Your task to perform on an android device: turn notification dots on Image 0: 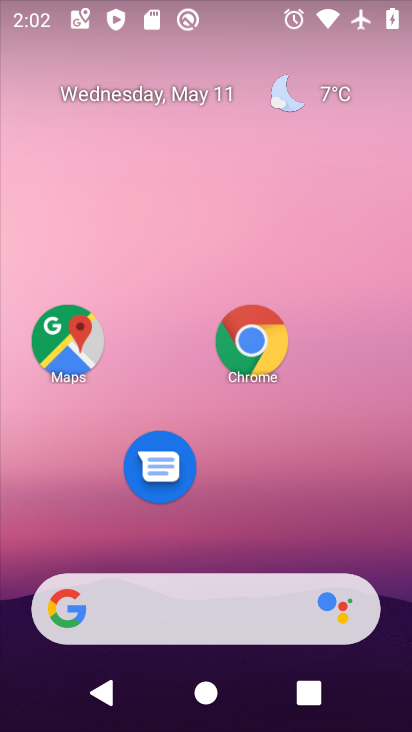
Step 0: drag from (204, 609) to (302, 78)
Your task to perform on an android device: turn notification dots on Image 1: 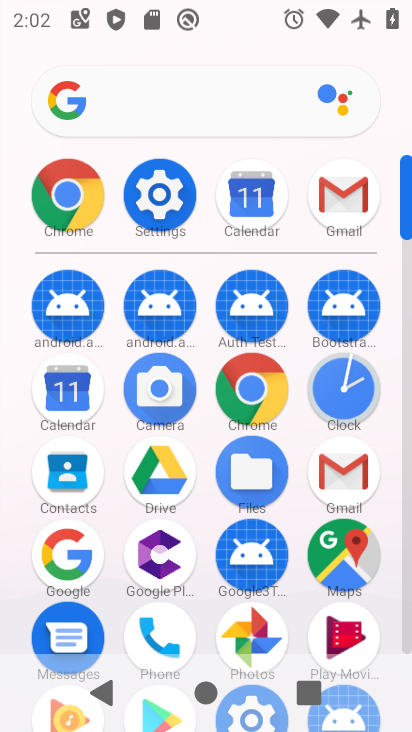
Step 1: click (167, 207)
Your task to perform on an android device: turn notification dots on Image 2: 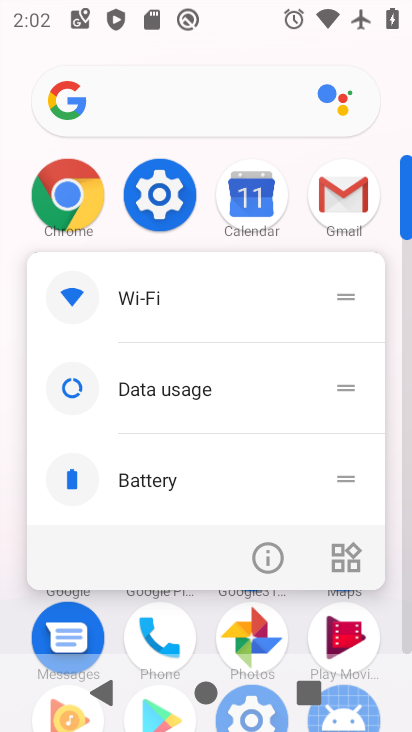
Step 2: click (160, 196)
Your task to perform on an android device: turn notification dots on Image 3: 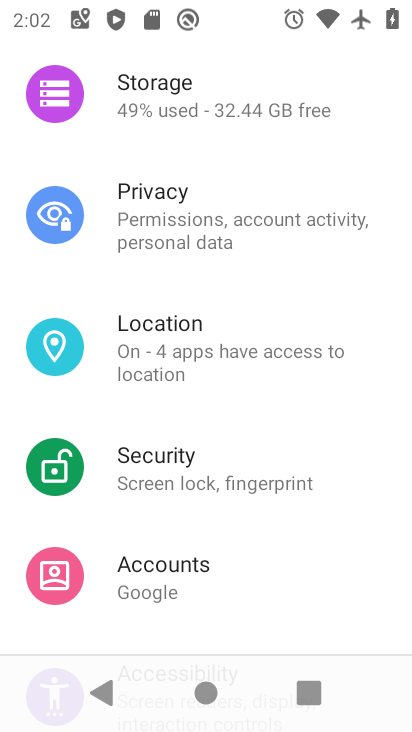
Step 3: drag from (266, 184) to (266, 573)
Your task to perform on an android device: turn notification dots on Image 4: 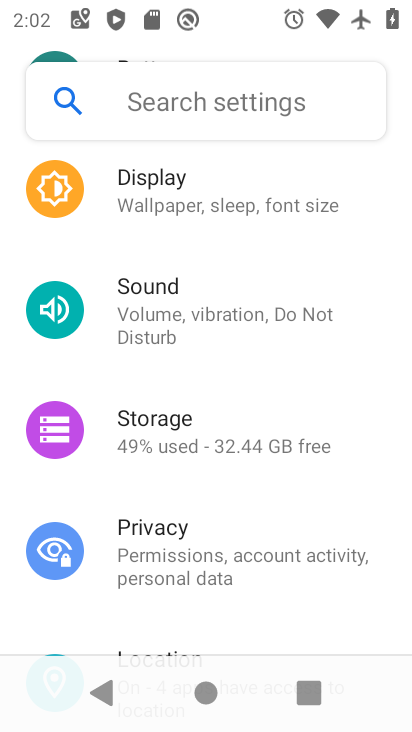
Step 4: drag from (272, 173) to (267, 533)
Your task to perform on an android device: turn notification dots on Image 5: 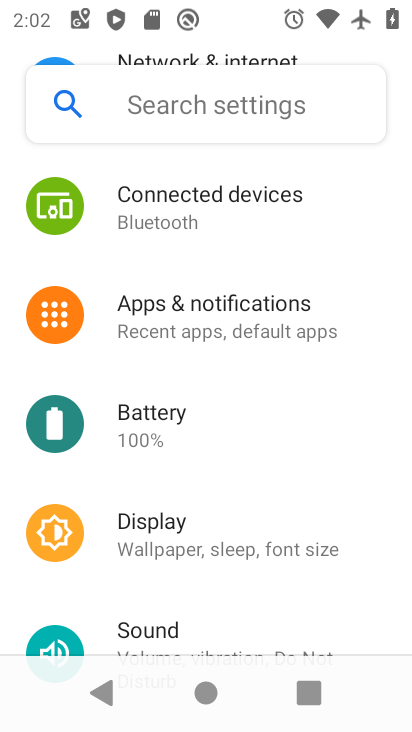
Step 5: click (240, 305)
Your task to perform on an android device: turn notification dots on Image 6: 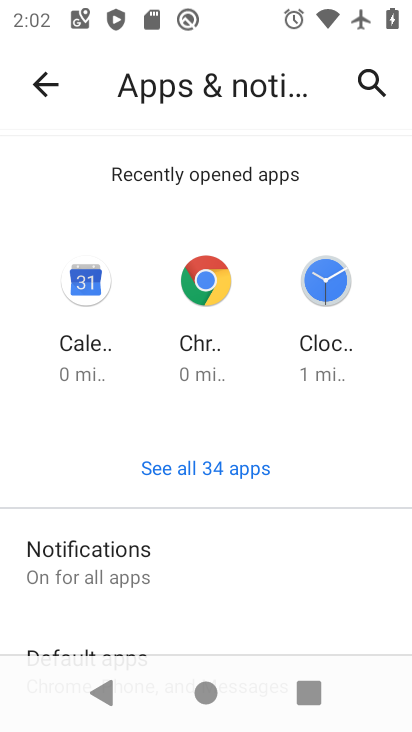
Step 6: click (124, 569)
Your task to perform on an android device: turn notification dots on Image 7: 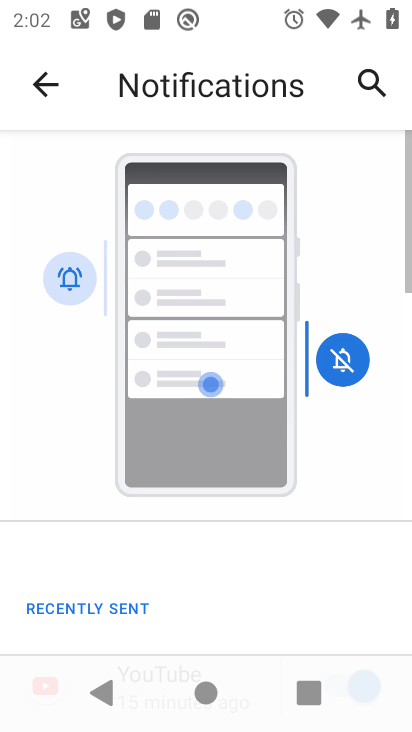
Step 7: drag from (227, 603) to (356, 143)
Your task to perform on an android device: turn notification dots on Image 8: 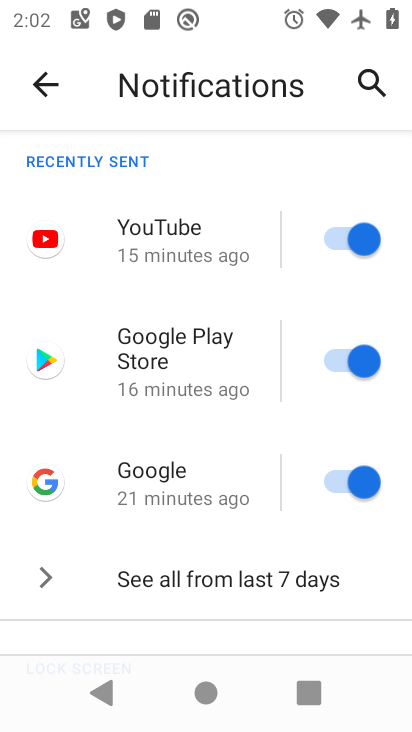
Step 8: drag from (202, 484) to (317, 119)
Your task to perform on an android device: turn notification dots on Image 9: 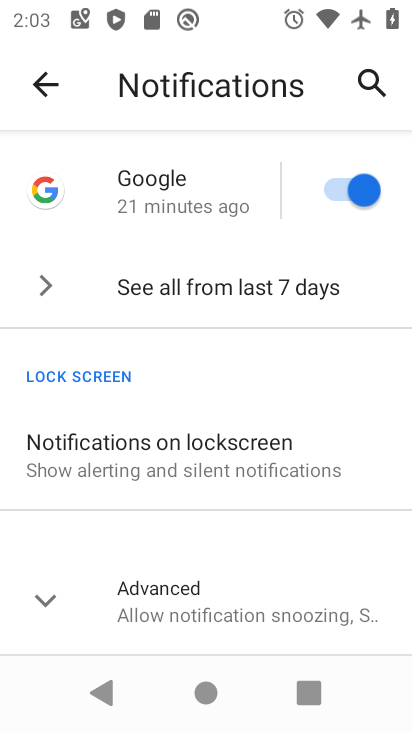
Step 9: click (184, 602)
Your task to perform on an android device: turn notification dots on Image 10: 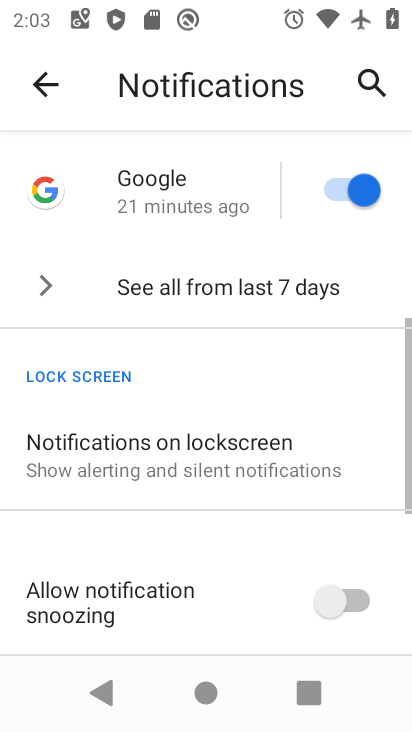
Step 10: drag from (238, 542) to (373, 196)
Your task to perform on an android device: turn notification dots on Image 11: 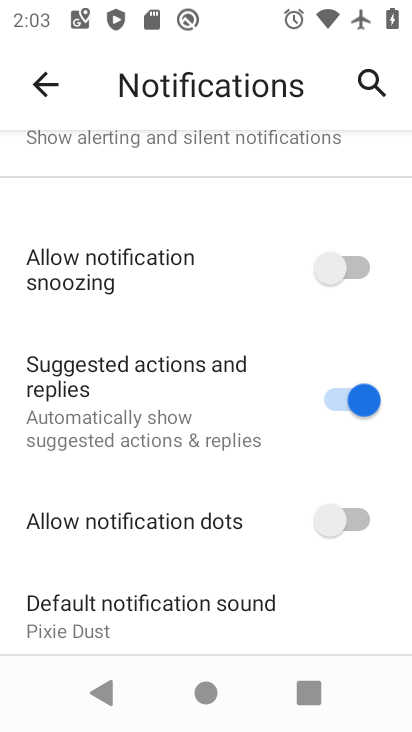
Step 11: click (353, 517)
Your task to perform on an android device: turn notification dots on Image 12: 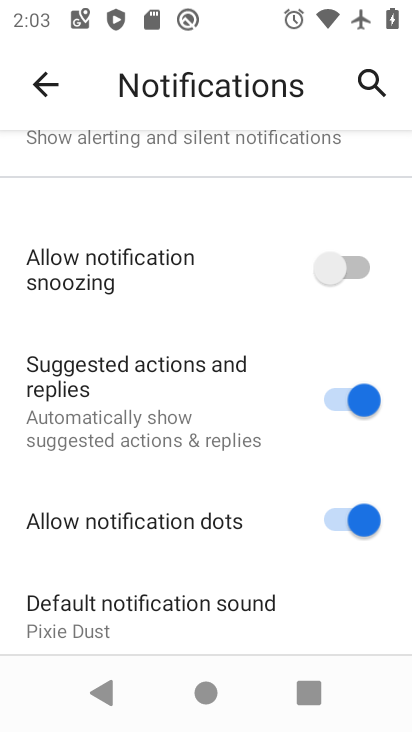
Step 12: task complete